Your task to perform on an android device: Search for the new steph curry shoes on Amazon. Image 0: 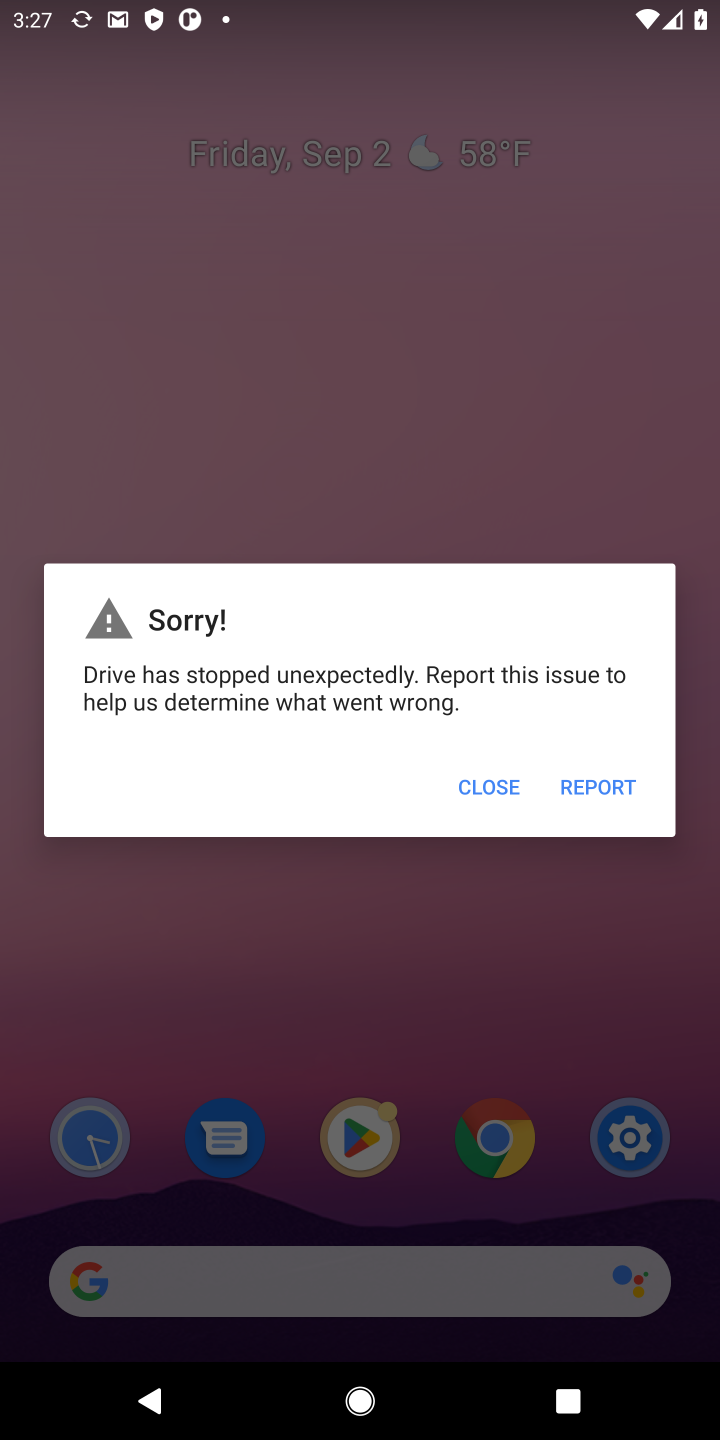
Step 0: click (497, 795)
Your task to perform on an android device: Search for the new steph curry shoes on Amazon. Image 1: 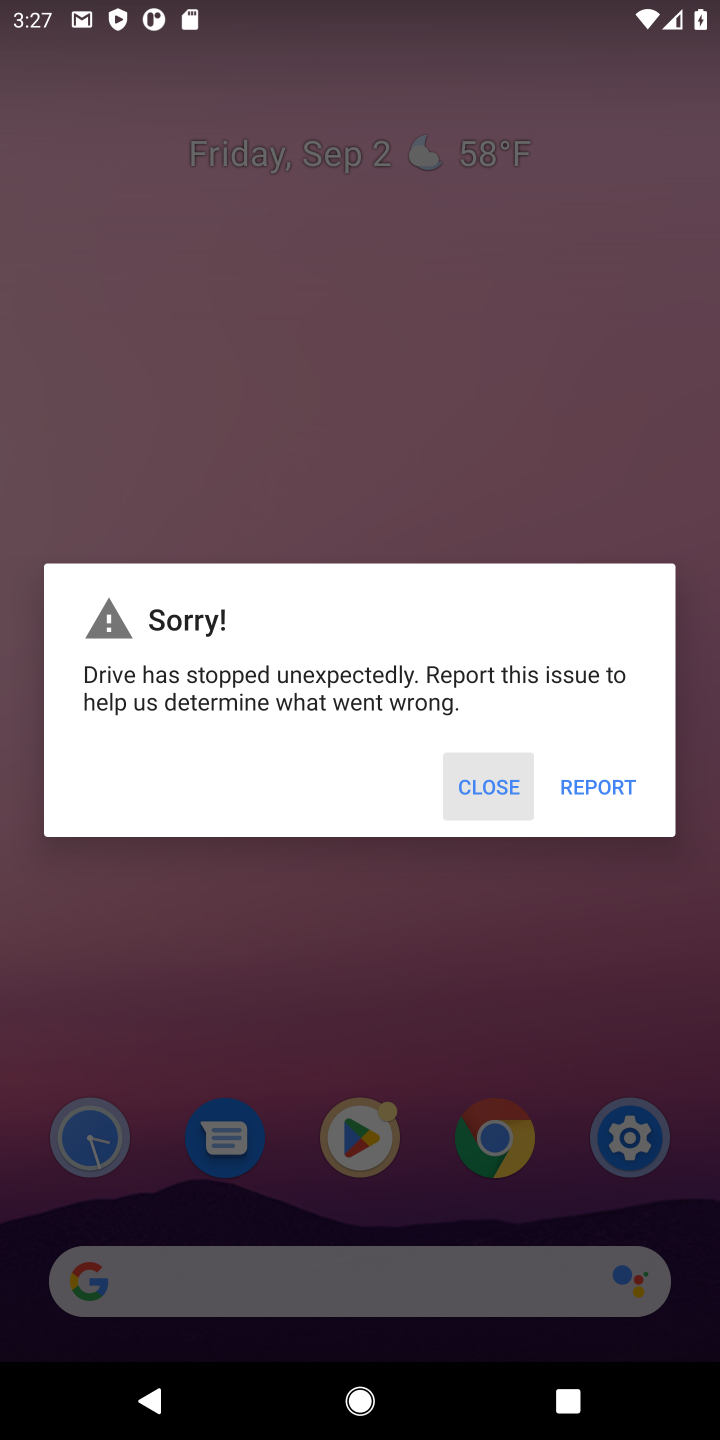
Step 1: press home button
Your task to perform on an android device: Search for the new steph curry shoes on Amazon. Image 2: 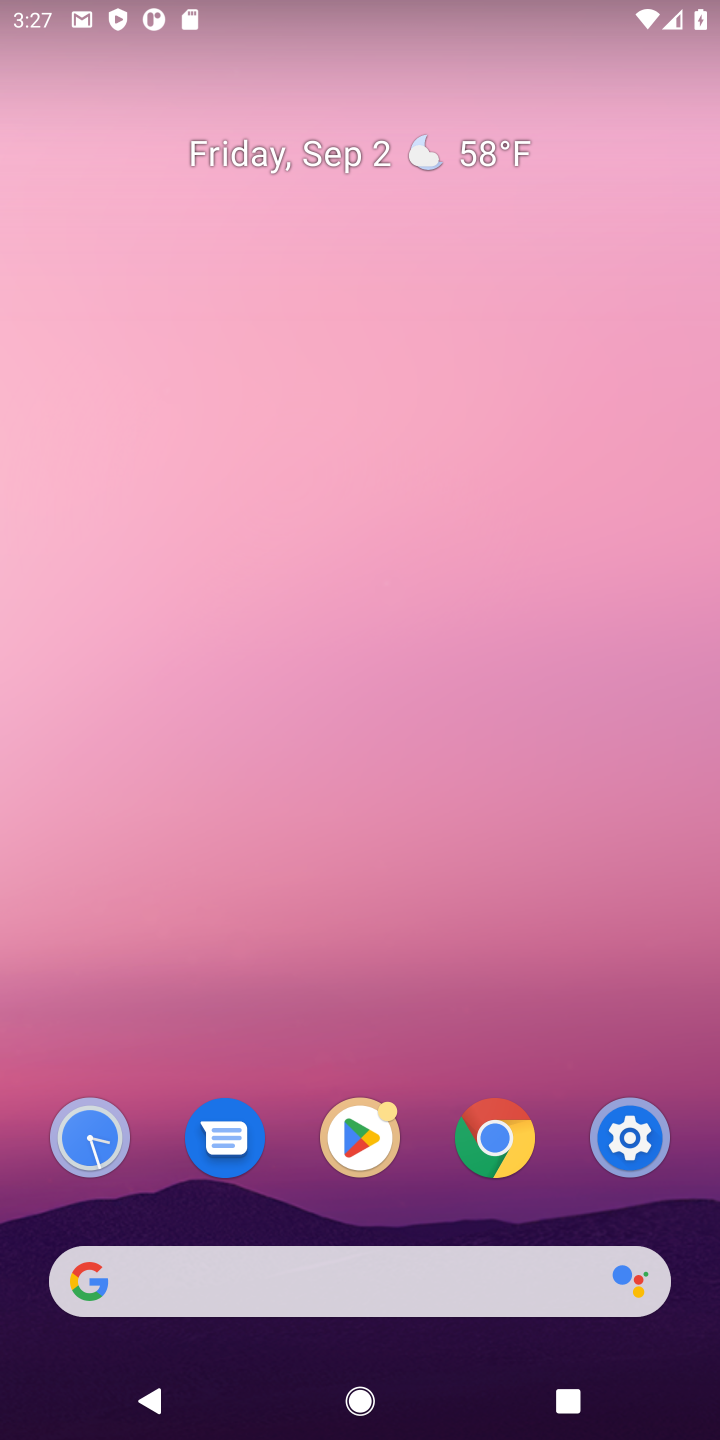
Step 2: click (508, 1141)
Your task to perform on an android device: Search for the new steph curry shoes on Amazon. Image 3: 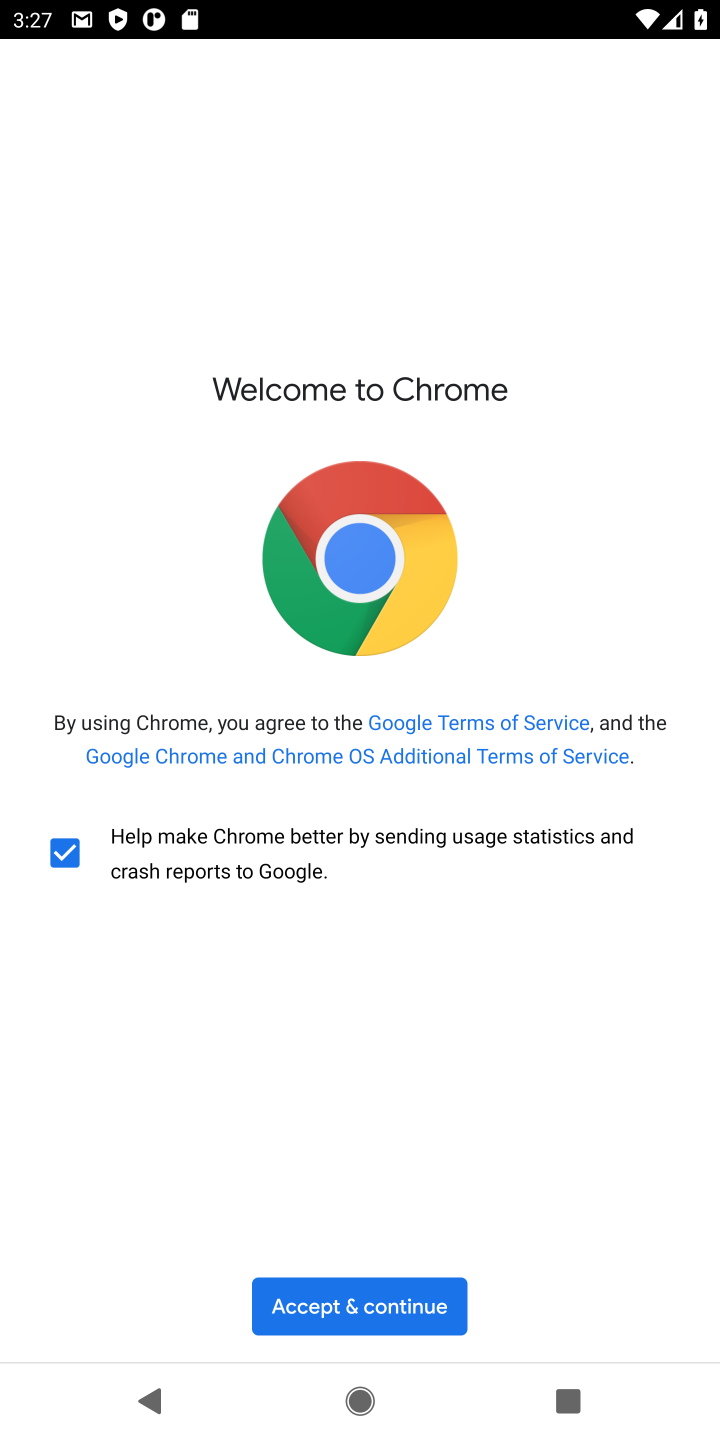
Step 3: click (402, 1314)
Your task to perform on an android device: Search for the new steph curry shoes on Amazon. Image 4: 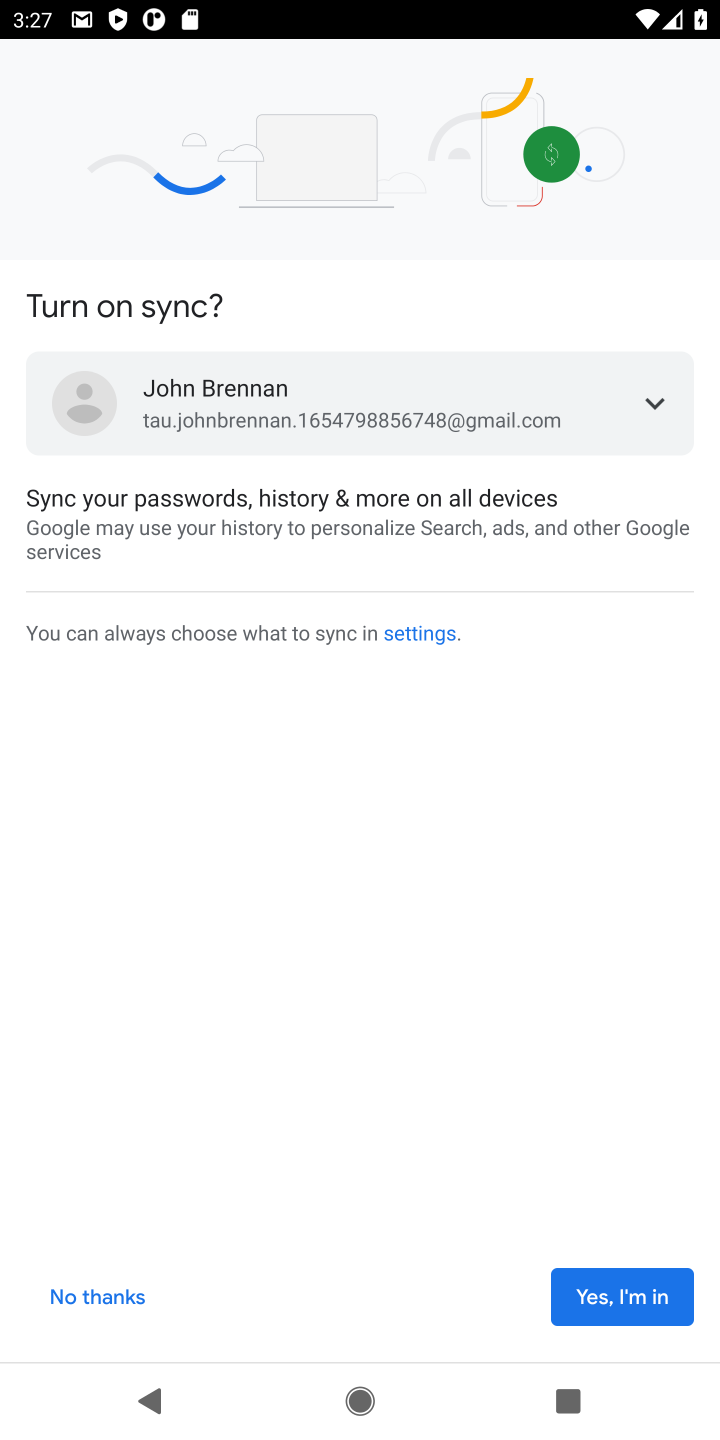
Step 4: click (598, 1315)
Your task to perform on an android device: Search for the new steph curry shoes on Amazon. Image 5: 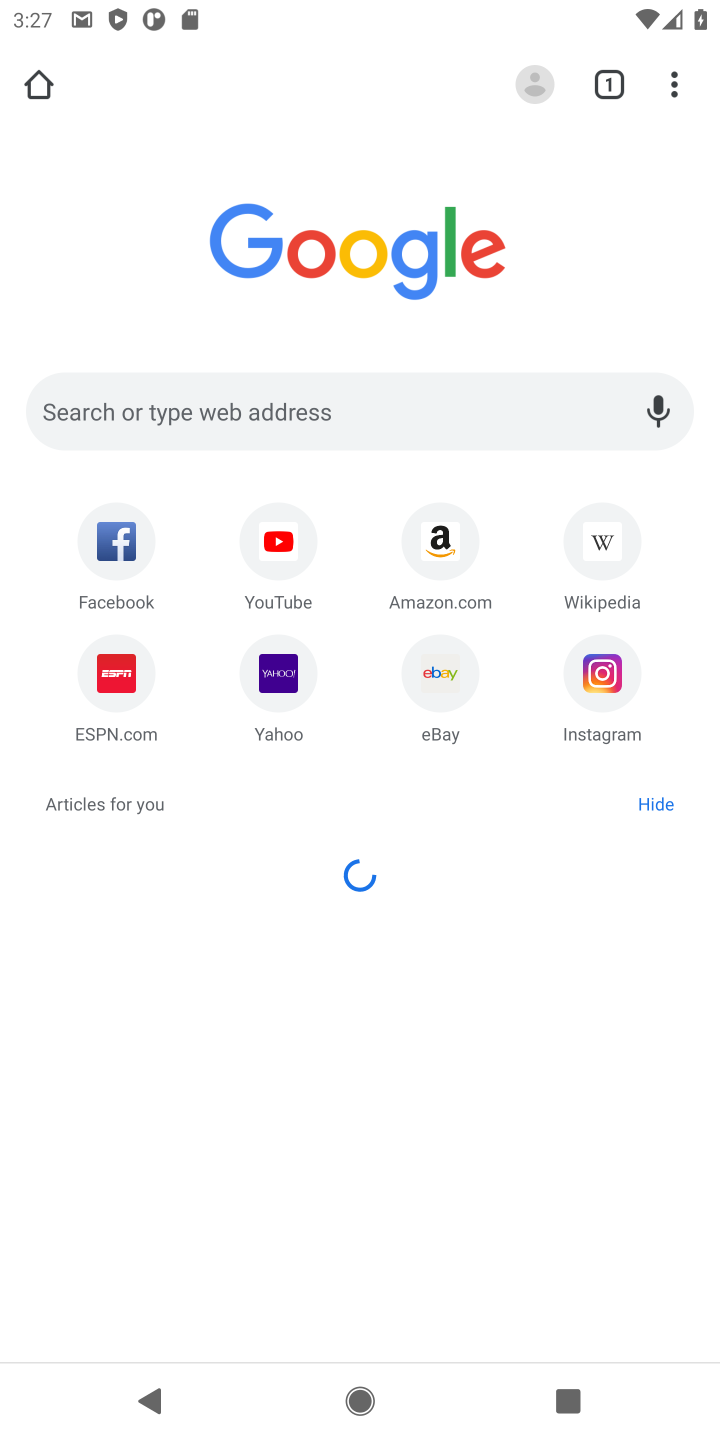
Step 5: click (439, 532)
Your task to perform on an android device: Search for the new steph curry shoes on Amazon. Image 6: 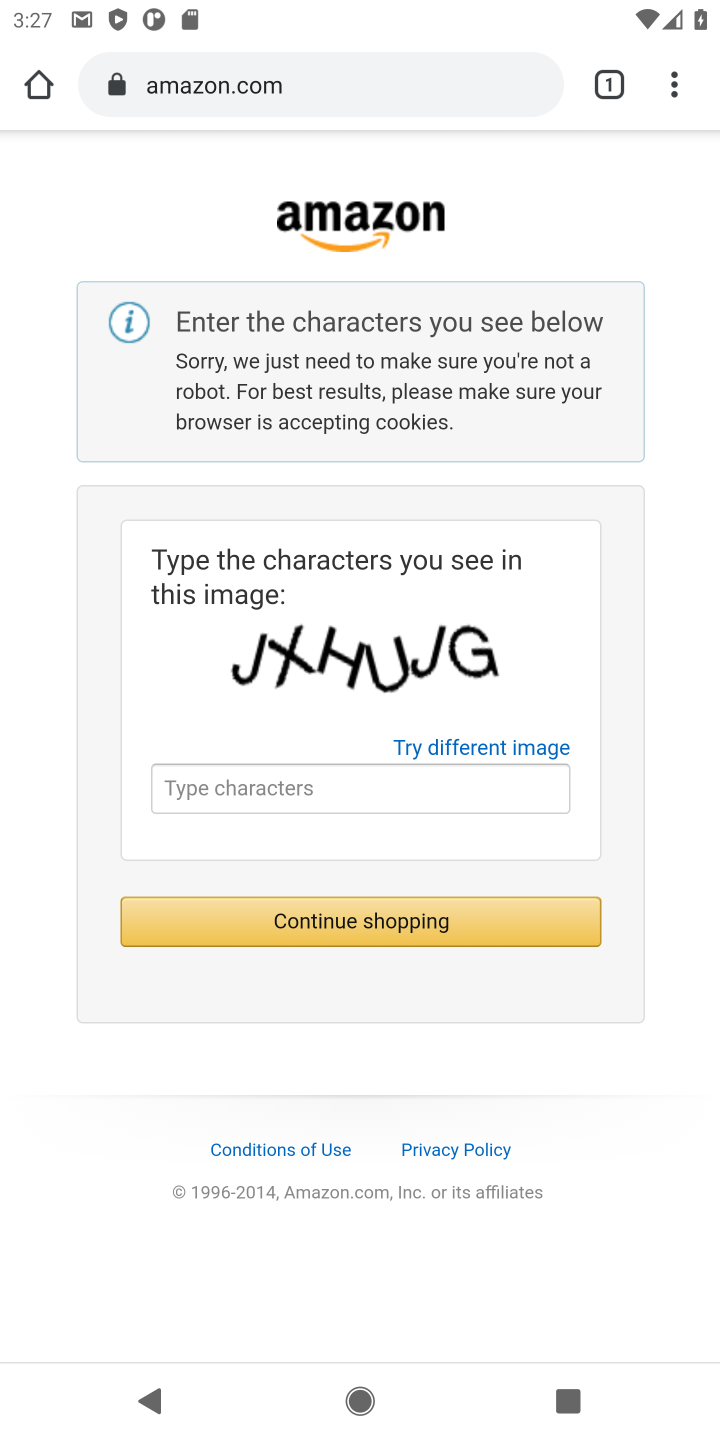
Step 6: click (450, 787)
Your task to perform on an android device: Search for the new steph curry shoes on Amazon. Image 7: 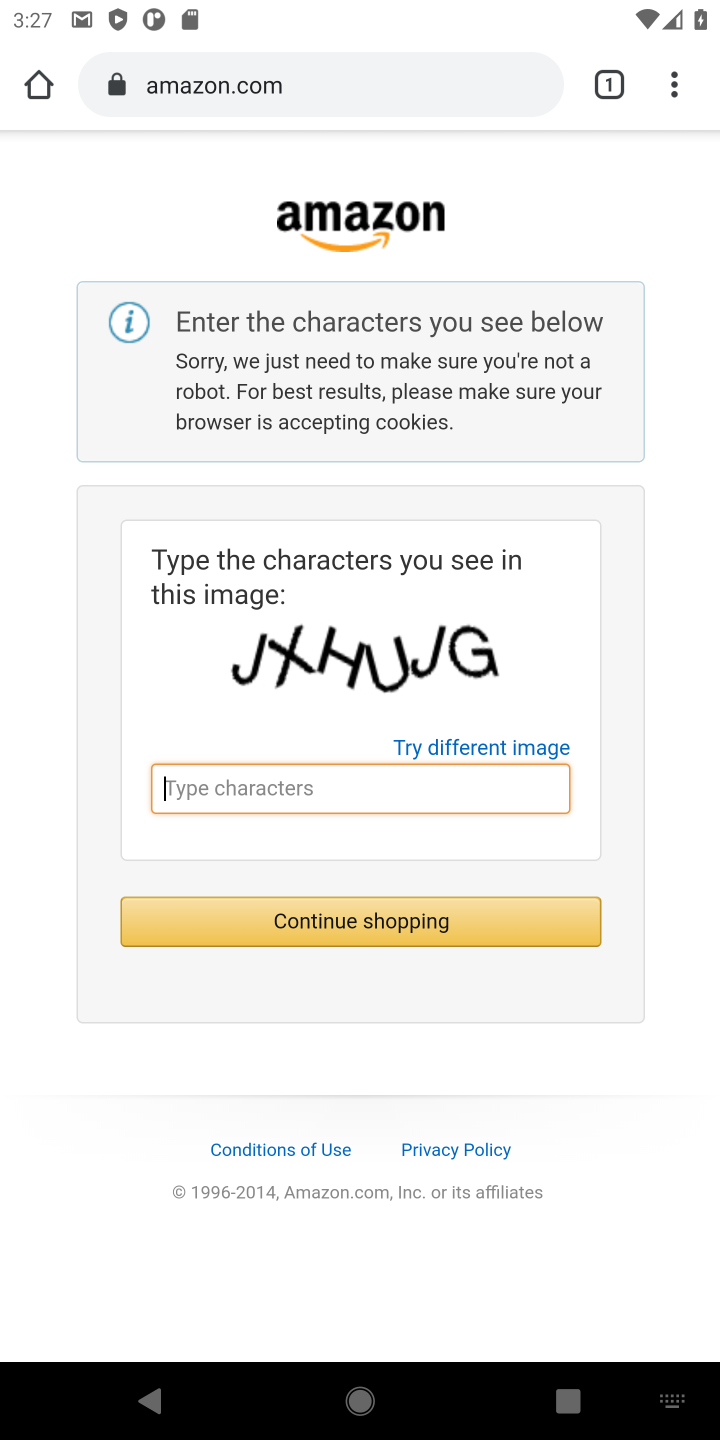
Step 7: type "JXHUJG"
Your task to perform on an android device: Search for the new steph curry shoes on Amazon. Image 8: 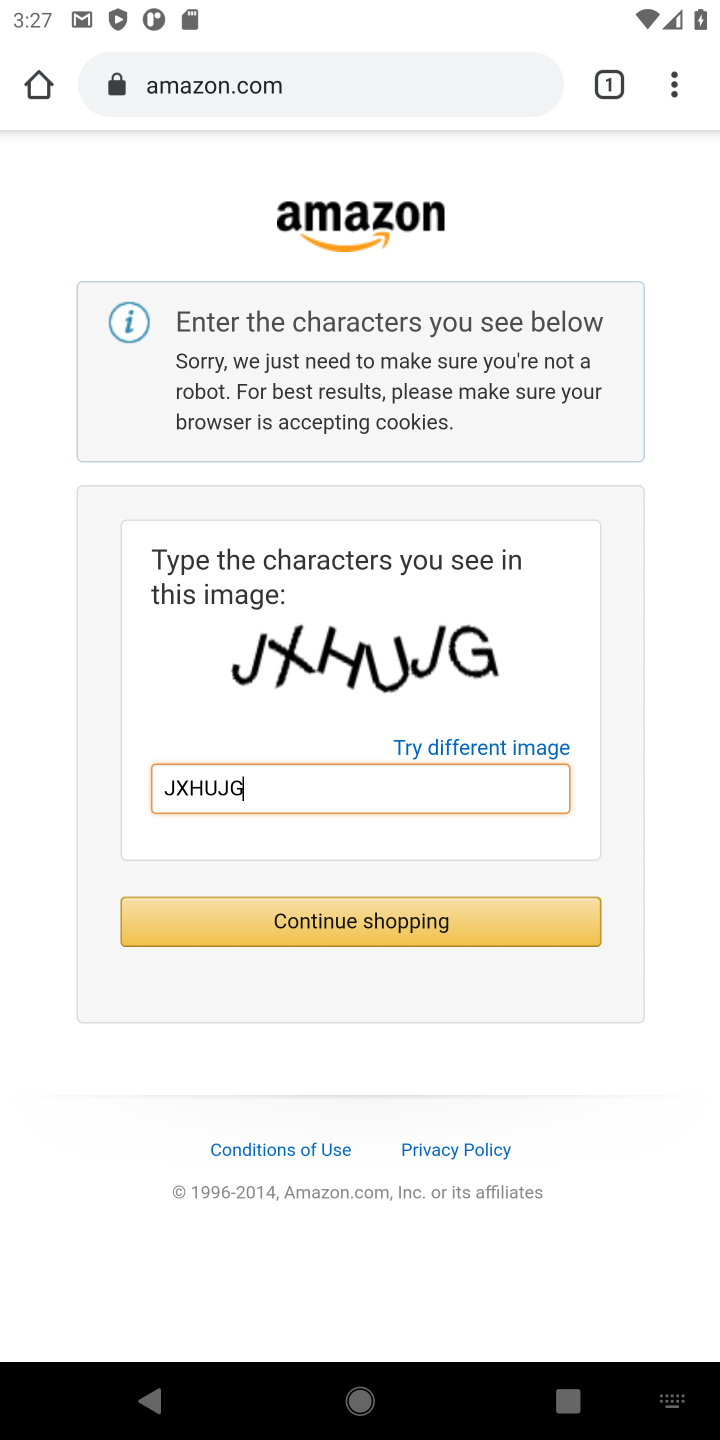
Step 8: click (307, 909)
Your task to perform on an android device: Search for the new steph curry shoes on Amazon. Image 9: 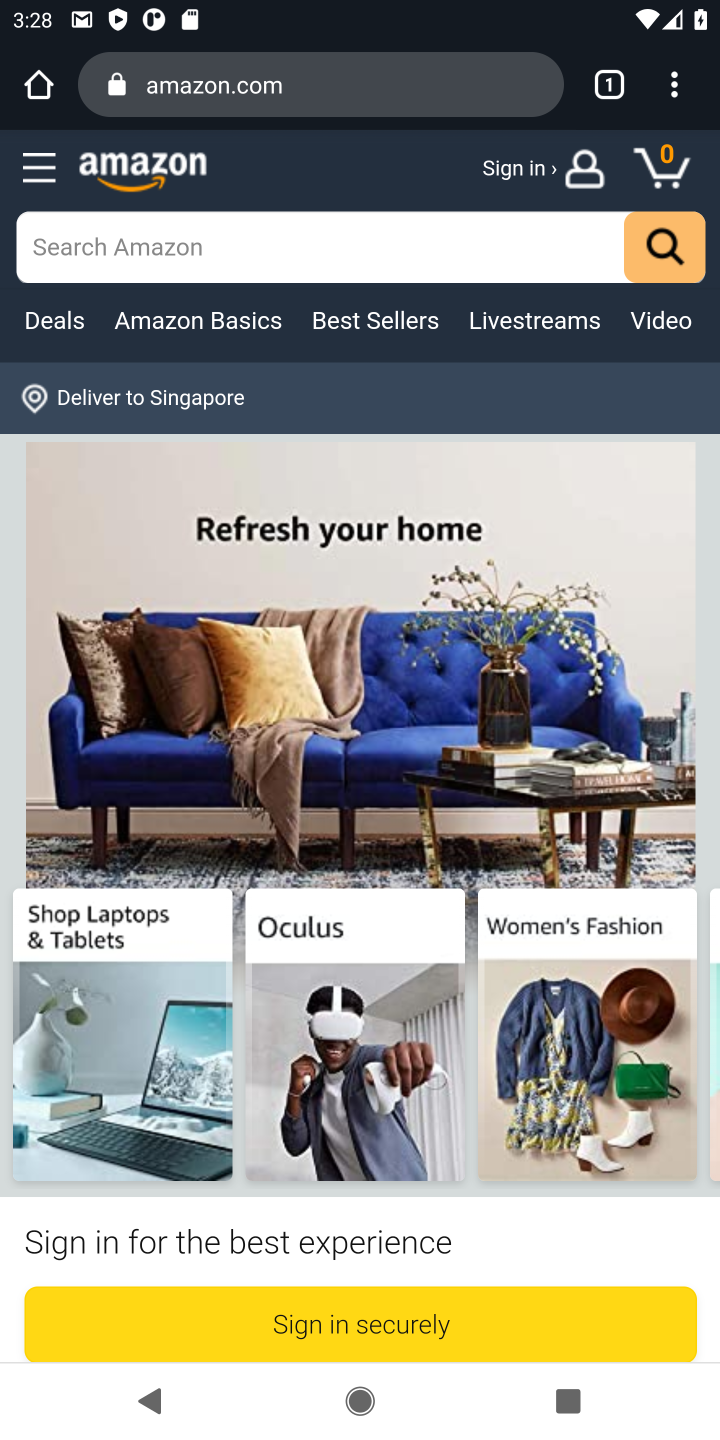
Step 9: click (376, 218)
Your task to perform on an android device: Search for the new steph curry shoes on Amazon. Image 10: 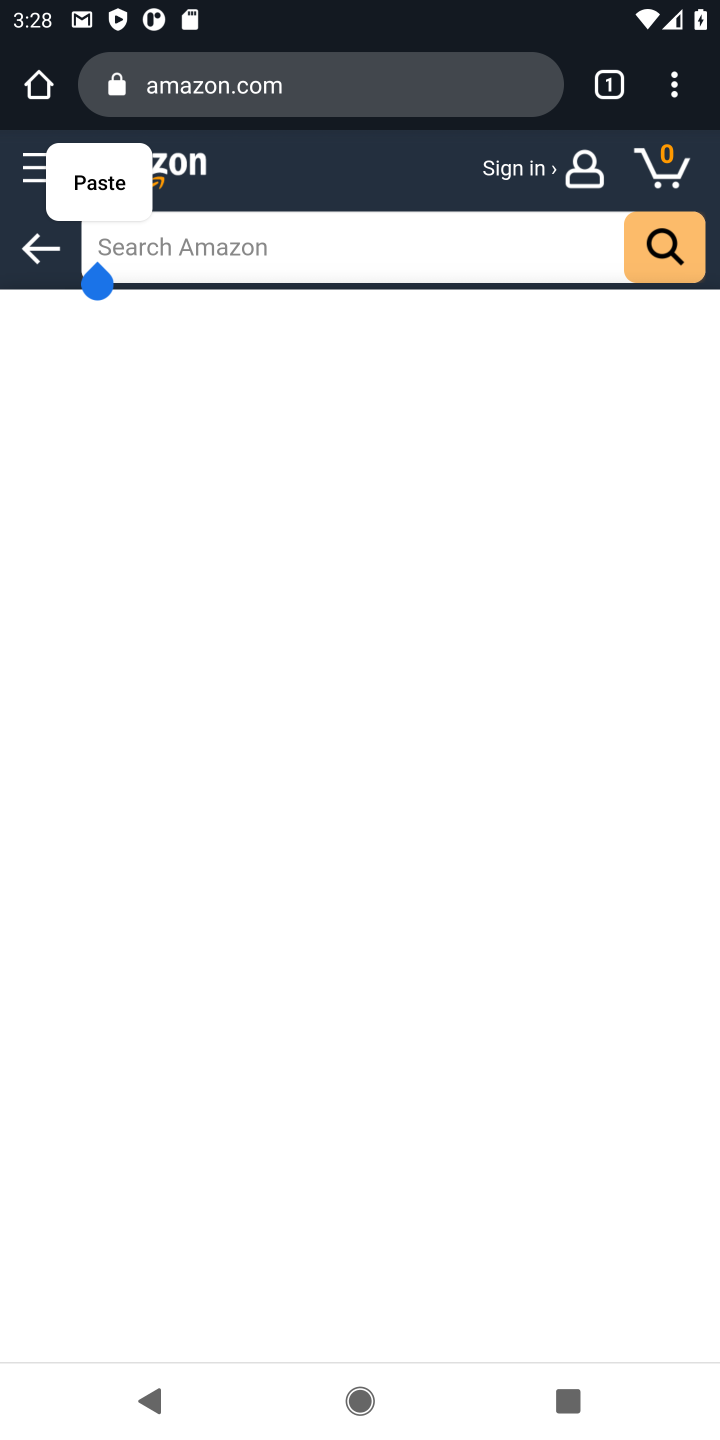
Step 10: type "new steph curry shoes"
Your task to perform on an android device: Search for the new steph curry shoes on Amazon. Image 11: 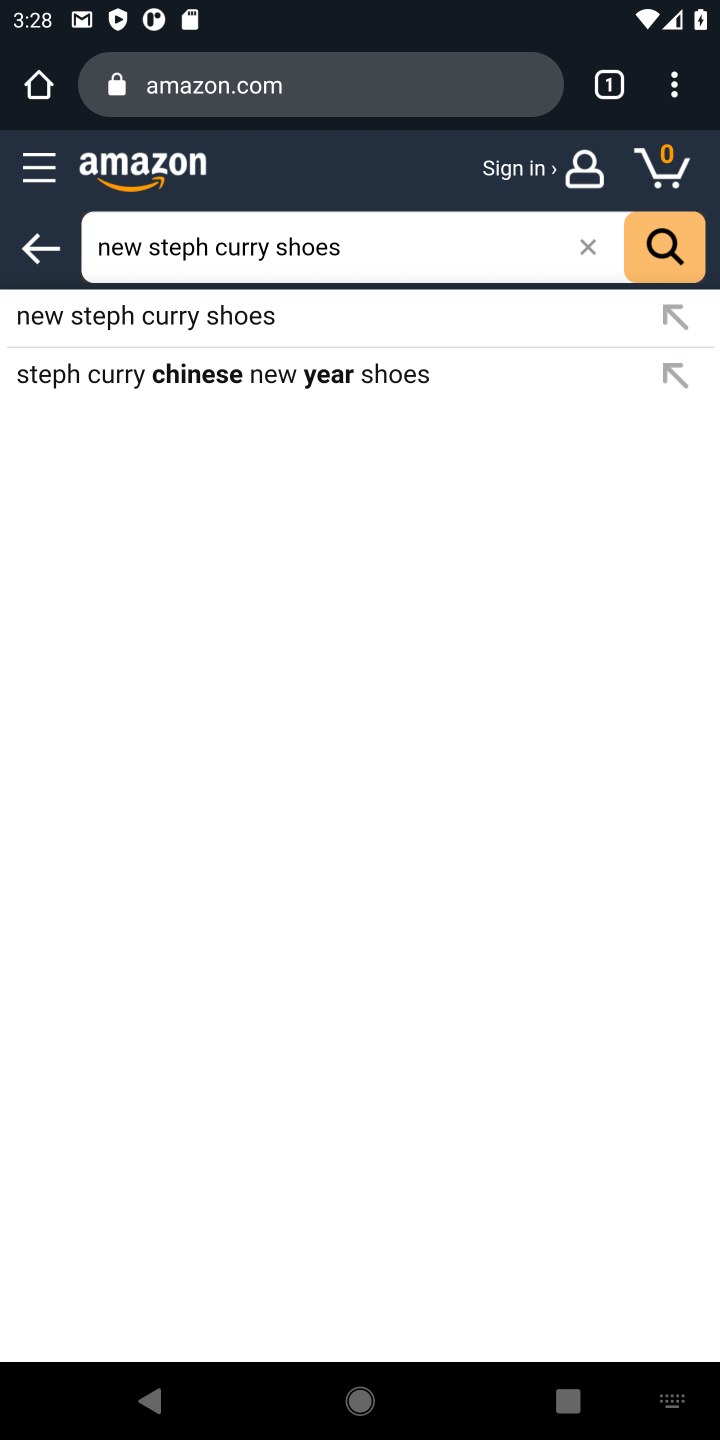
Step 11: click (263, 312)
Your task to perform on an android device: Search for the new steph curry shoes on Amazon. Image 12: 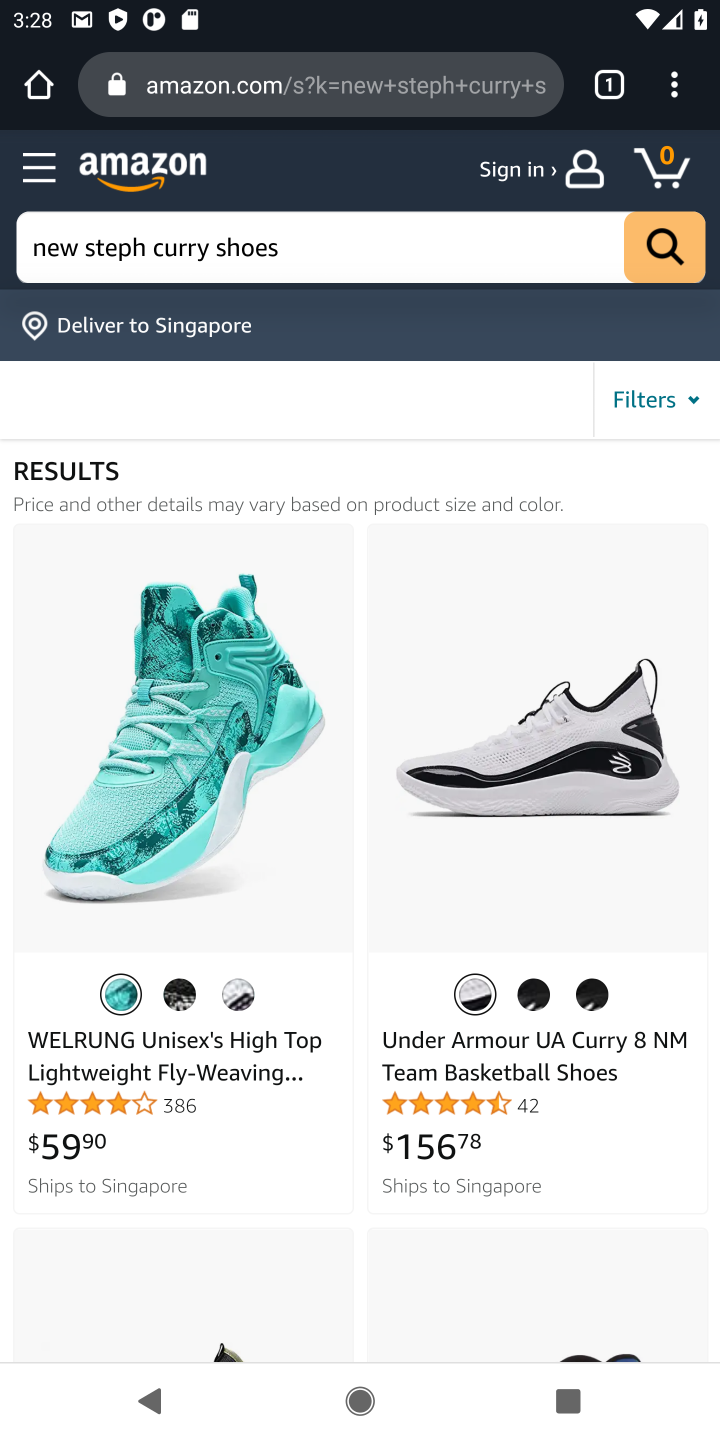
Step 12: task complete